Your task to perform on an android device: Go to CNN.com Image 0: 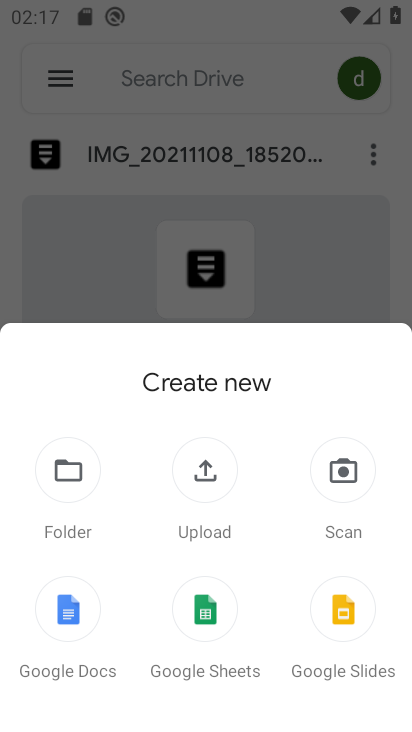
Step 0: press home button
Your task to perform on an android device: Go to CNN.com Image 1: 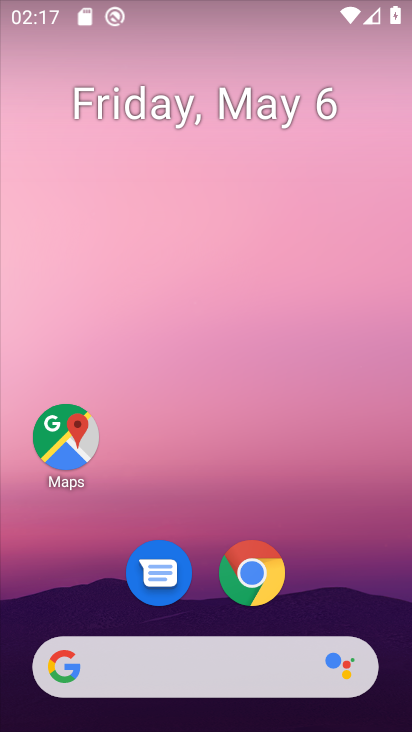
Step 1: drag from (334, 578) to (367, 227)
Your task to perform on an android device: Go to CNN.com Image 2: 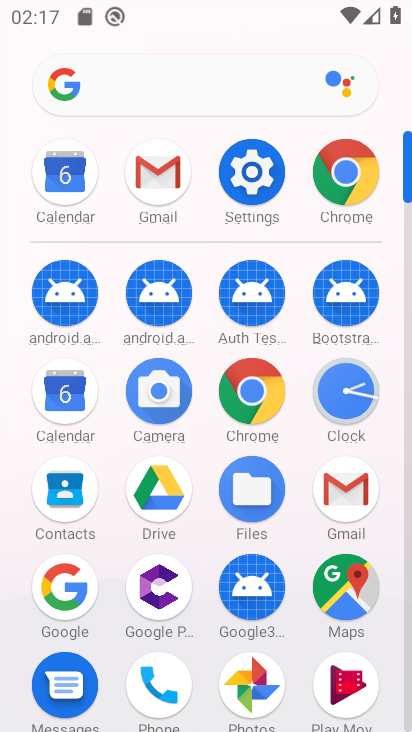
Step 2: click (252, 377)
Your task to perform on an android device: Go to CNN.com Image 3: 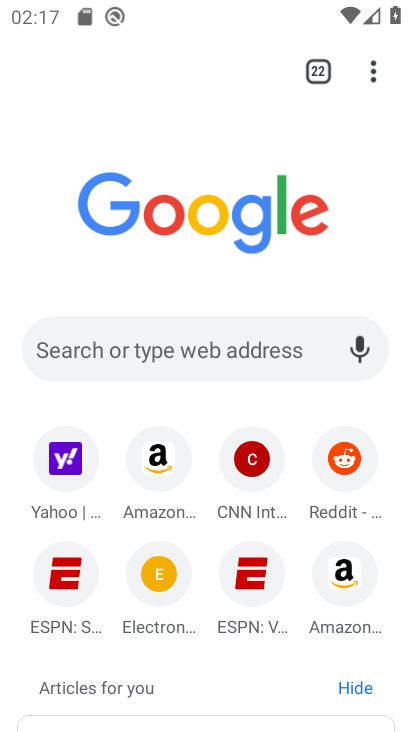
Step 3: click (242, 468)
Your task to perform on an android device: Go to CNN.com Image 4: 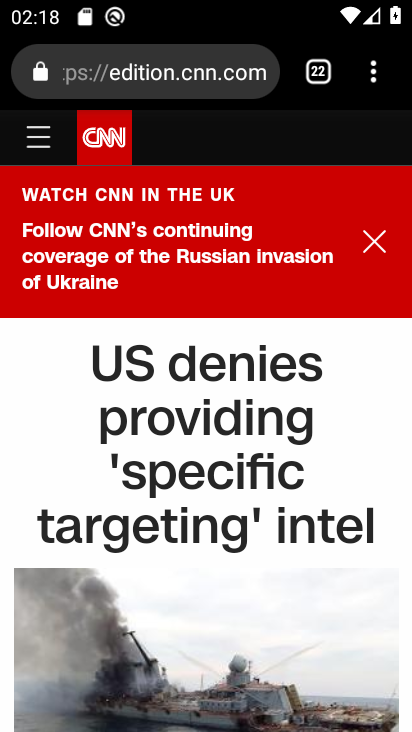
Step 4: task complete